Your task to perform on an android device: Open wifi settings Image 0: 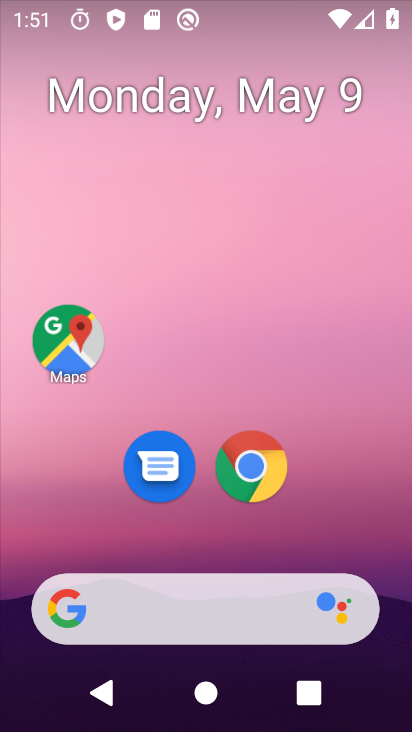
Step 0: drag from (229, 507) to (258, 113)
Your task to perform on an android device: Open wifi settings Image 1: 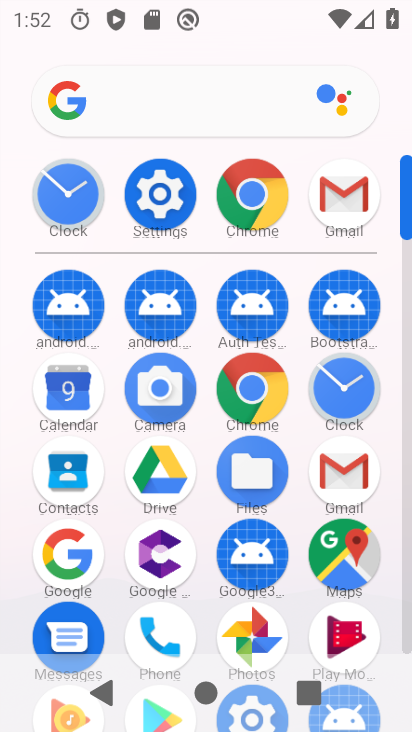
Step 1: click (186, 178)
Your task to perform on an android device: Open wifi settings Image 2: 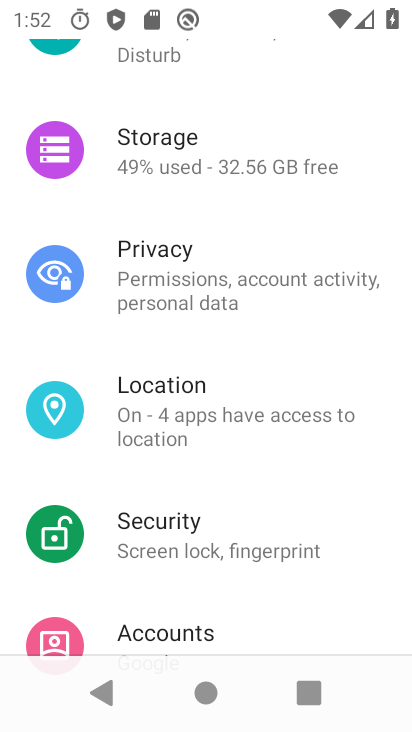
Step 2: drag from (211, 203) to (172, 459)
Your task to perform on an android device: Open wifi settings Image 3: 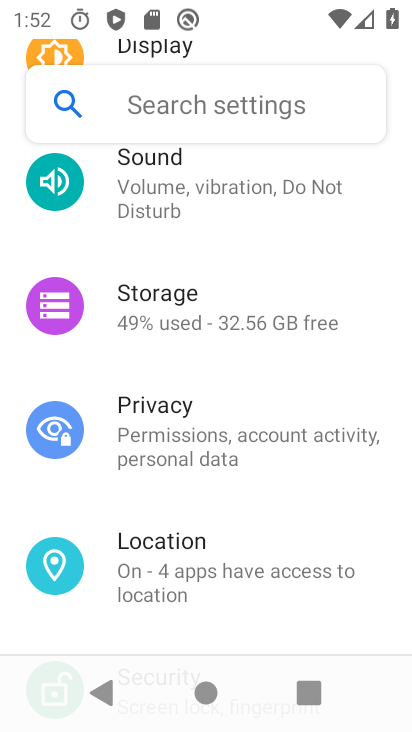
Step 3: drag from (160, 197) to (180, 466)
Your task to perform on an android device: Open wifi settings Image 4: 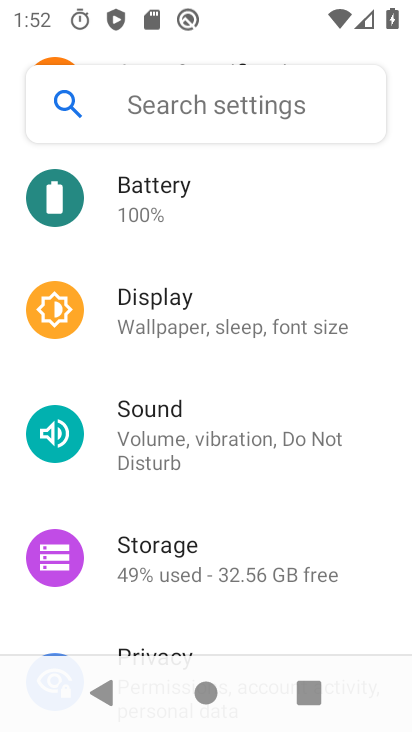
Step 4: drag from (153, 250) to (227, 605)
Your task to perform on an android device: Open wifi settings Image 5: 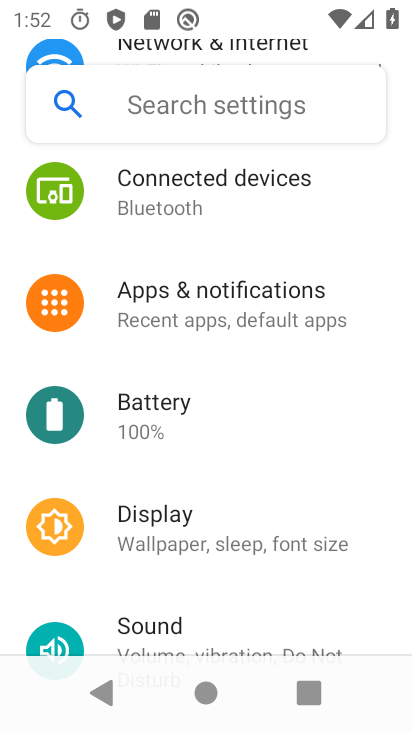
Step 5: drag from (223, 304) to (273, 565)
Your task to perform on an android device: Open wifi settings Image 6: 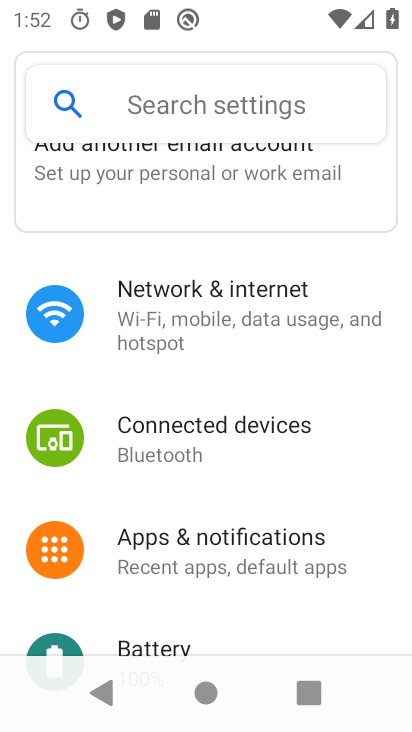
Step 6: click (251, 313)
Your task to perform on an android device: Open wifi settings Image 7: 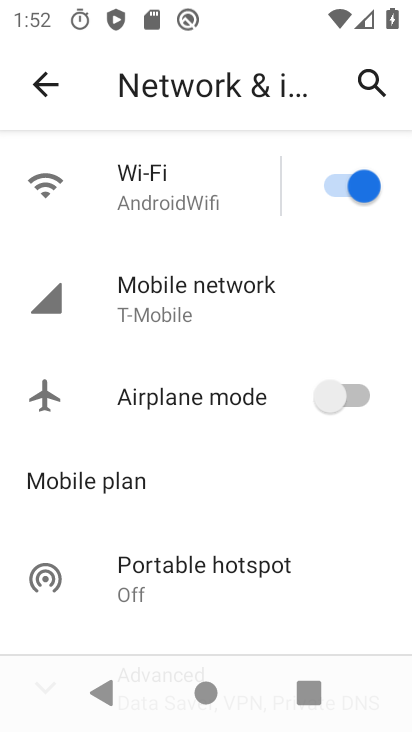
Step 7: click (188, 200)
Your task to perform on an android device: Open wifi settings Image 8: 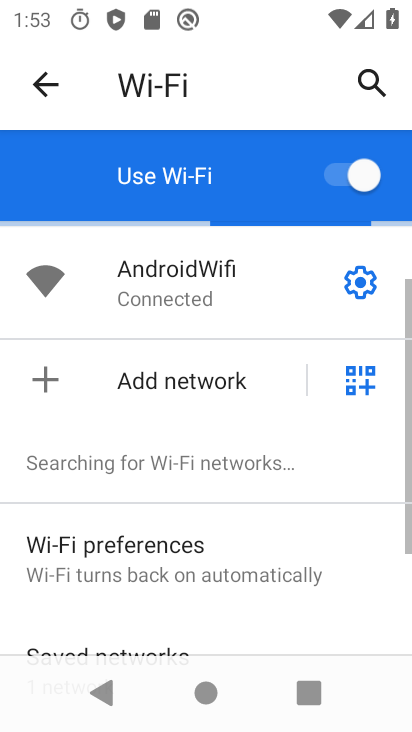
Step 8: task complete